Your task to perform on an android device: toggle notification dots Image 0: 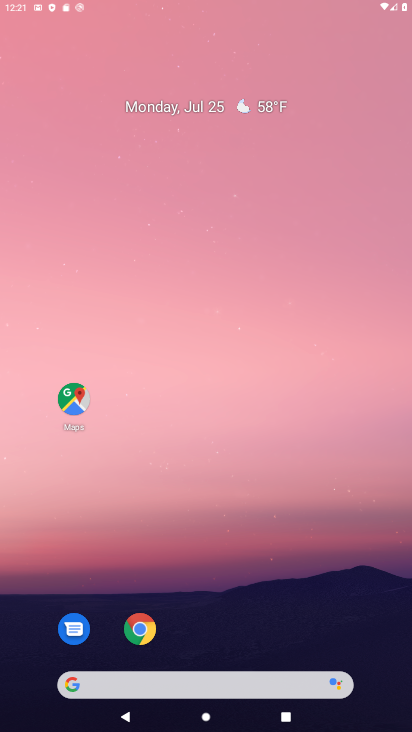
Step 0: press home button
Your task to perform on an android device: toggle notification dots Image 1: 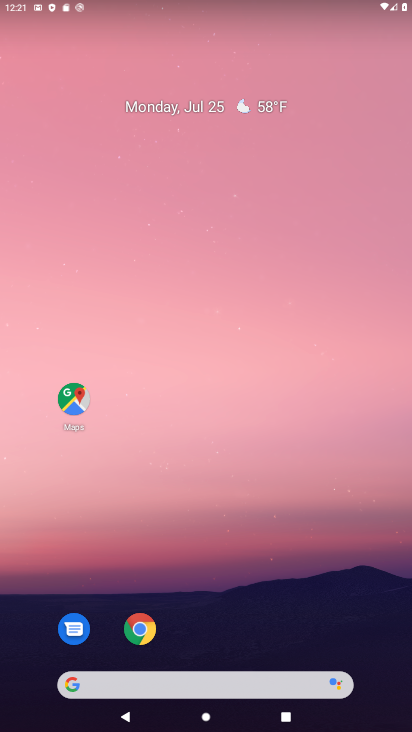
Step 1: drag from (177, 667) to (160, 53)
Your task to perform on an android device: toggle notification dots Image 2: 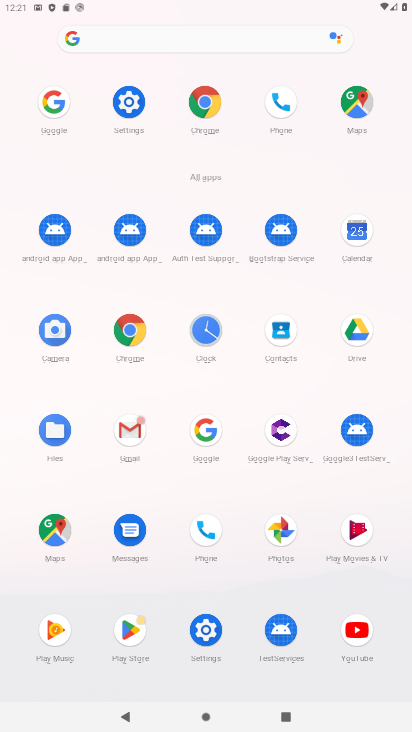
Step 2: click (139, 103)
Your task to perform on an android device: toggle notification dots Image 3: 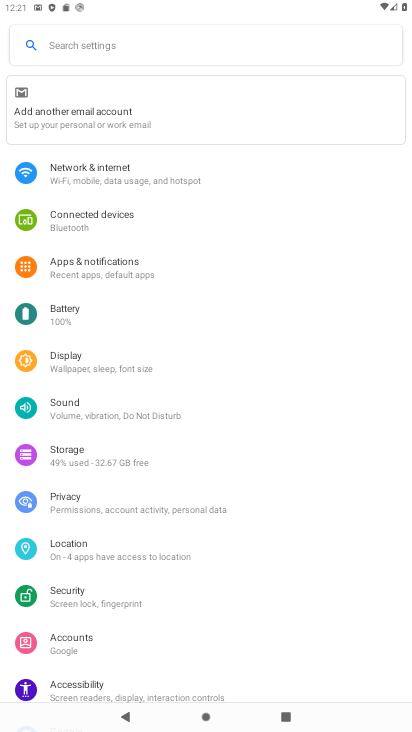
Step 3: click (142, 248)
Your task to perform on an android device: toggle notification dots Image 4: 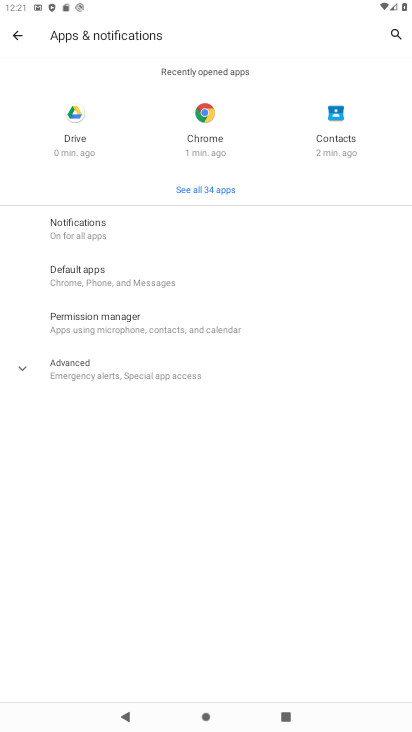
Step 4: click (108, 367)
Your task to perform on an android device: toggle notification dots Image 5: 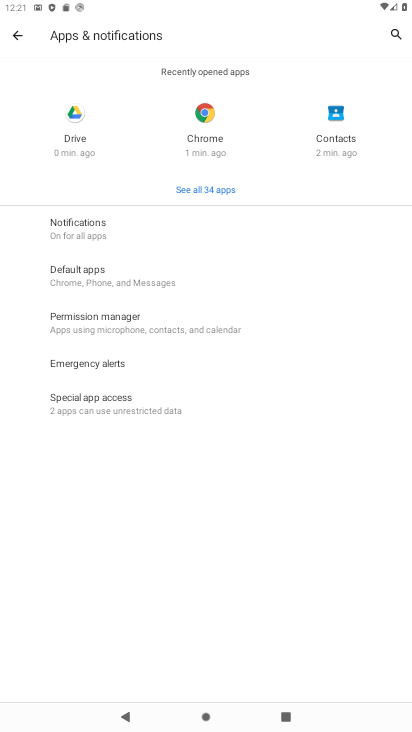
Step 5: click (74, 242)
Your task to perform on an android device: toggle notification dots Image 6: 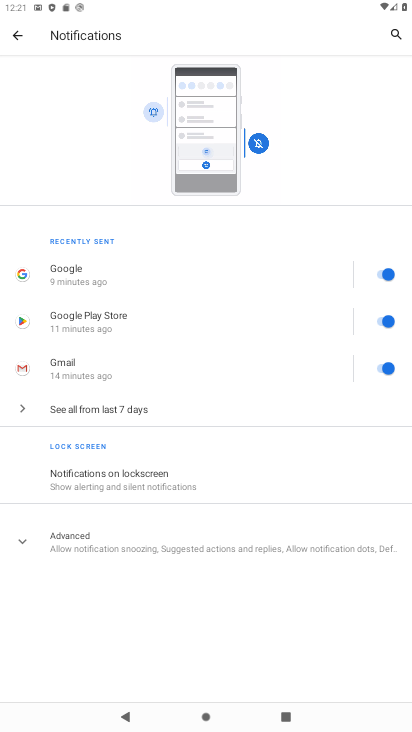
Step 6: click (87, 548)
Your task to perform on an android device: toggle notification dots Image 7: 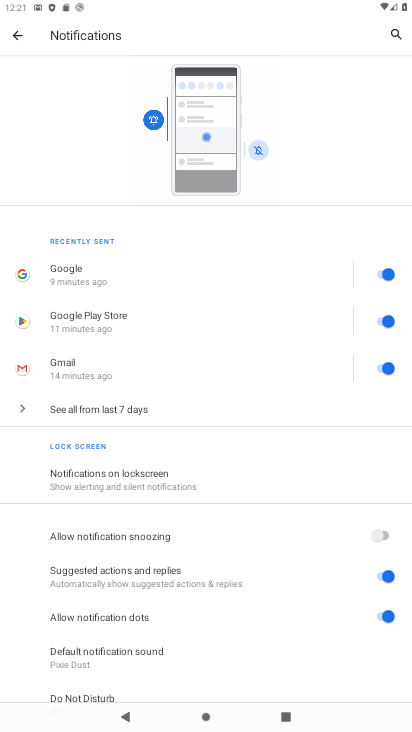
Step 7: click (382, 612)
Your task to perform on an android device: toggle notification dots Image 8: 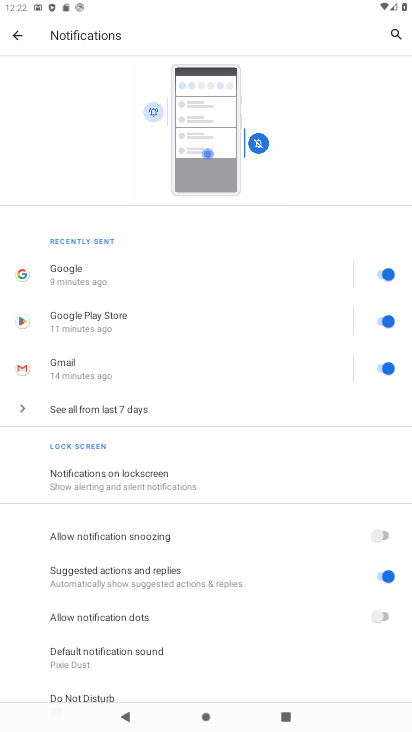
Step 8: task complete